Your task to perform on an android device: Open calendar and show me the first week of next month Image 0: 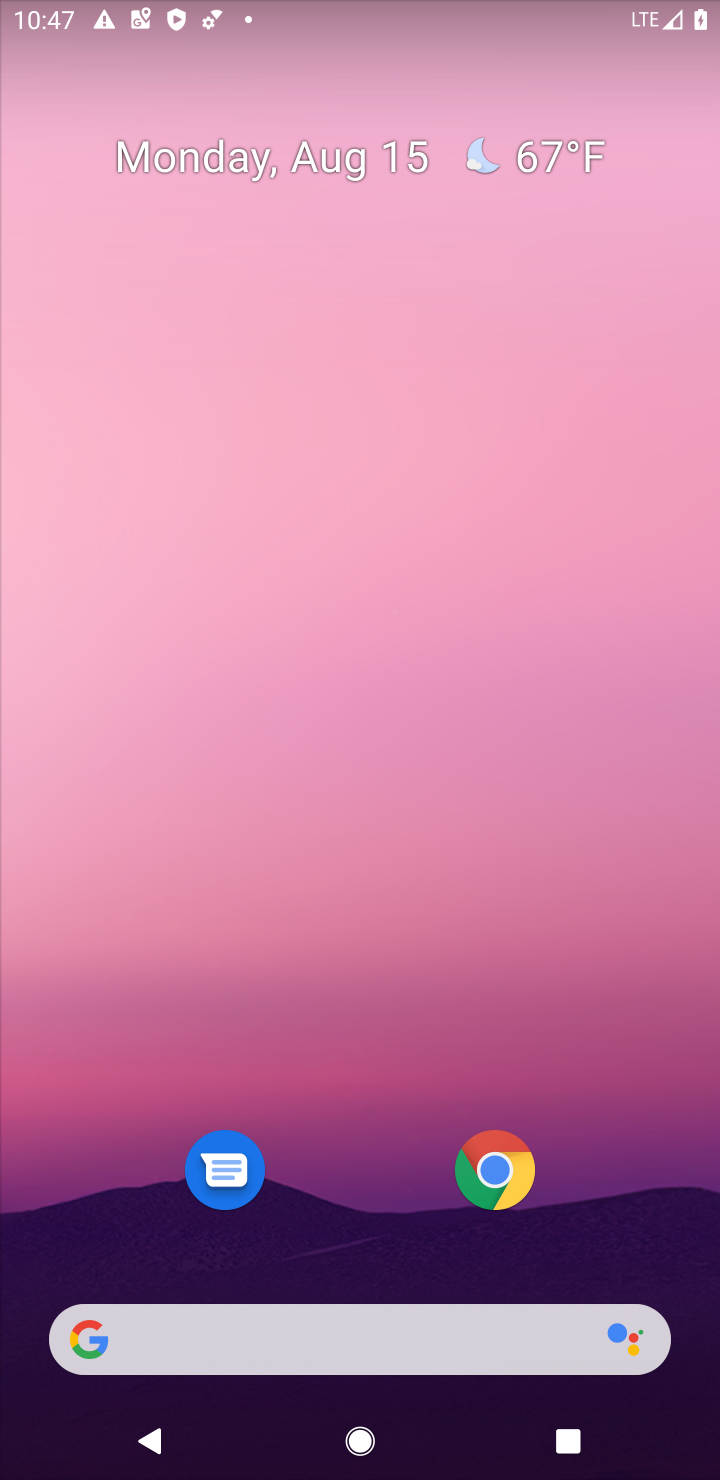
Step 0: drag from (365, 1252) to (310, 1)
Your task to perform on an android device: Open calendar and show me the first week of next month Image 1: 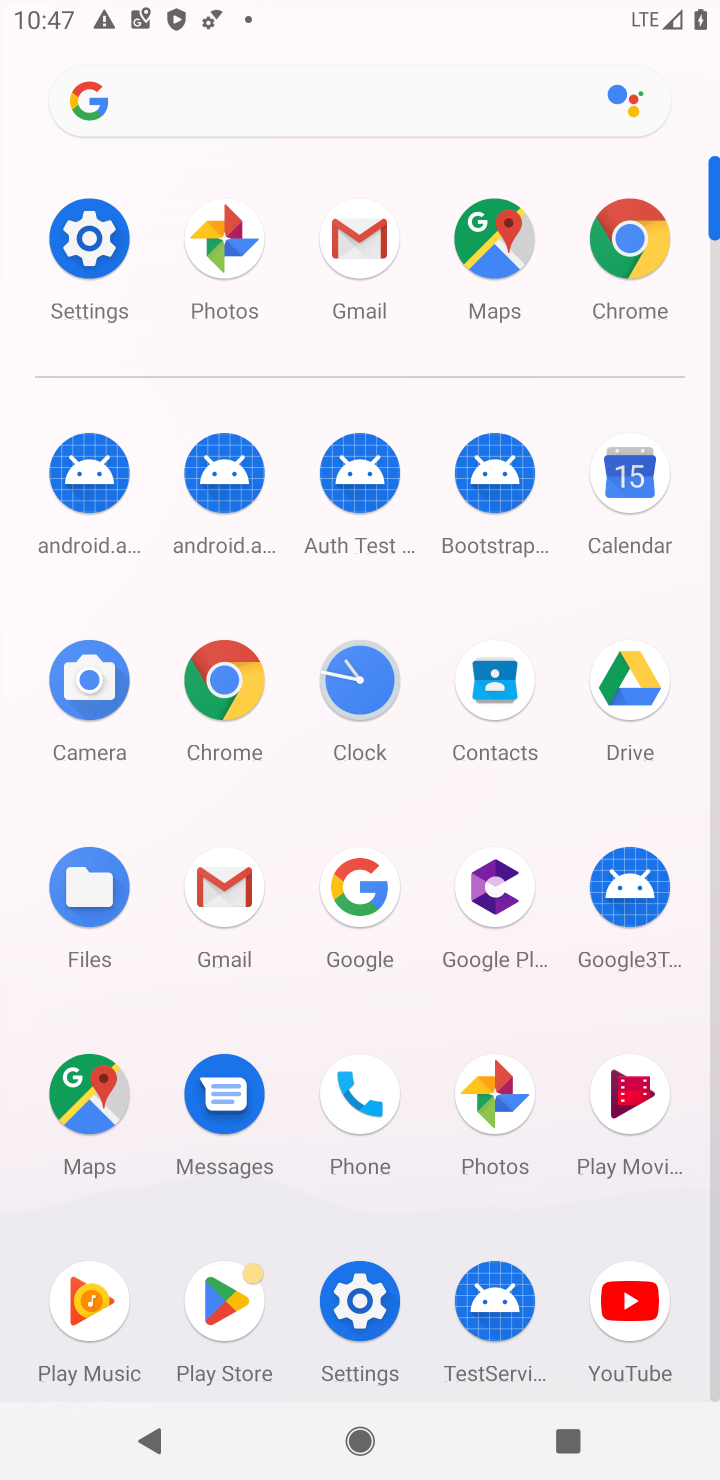
Step 1: click (629, 467)
Your task to perform on an android device: Open calendar and show me the first week of next month Image 2: 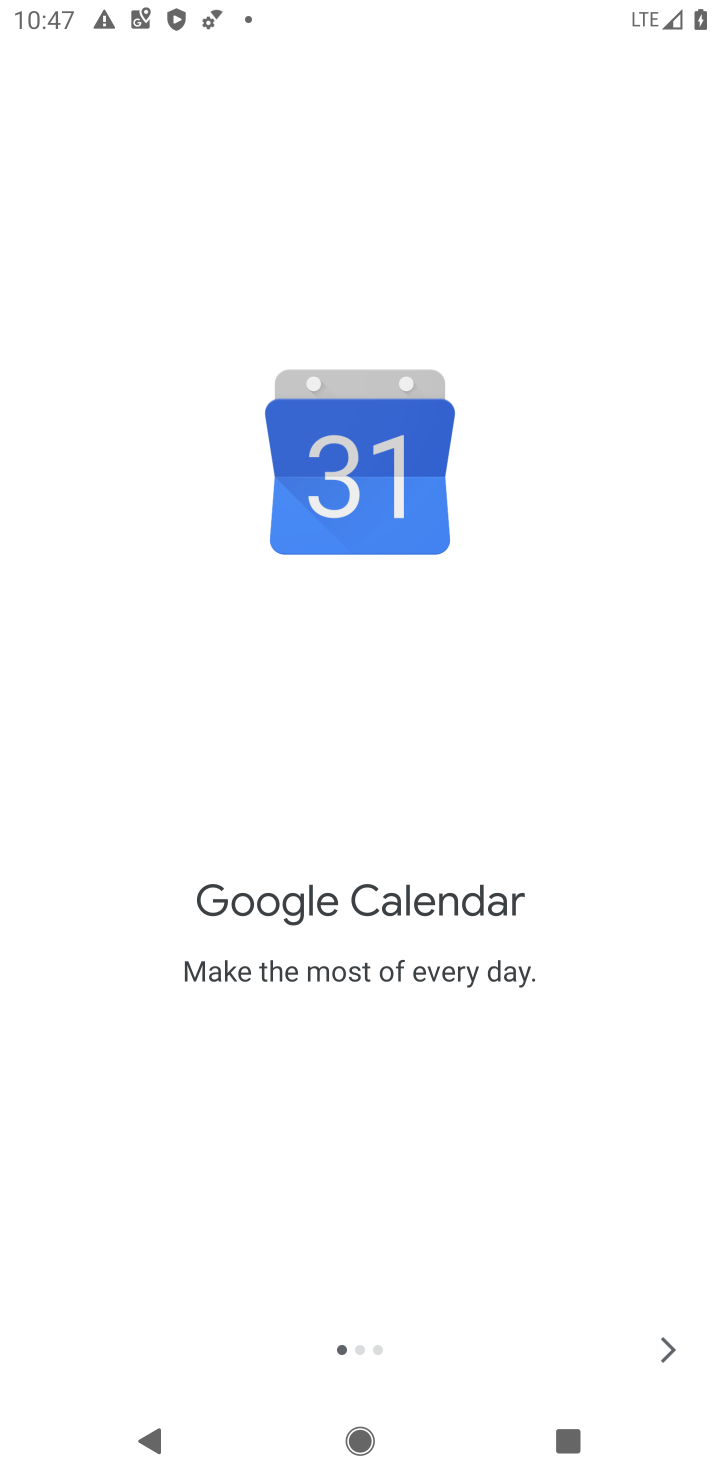
Step 2: click (655, 1348)
Your task to perform on an android device: Open calendar and show me the first week of next month Image 3: 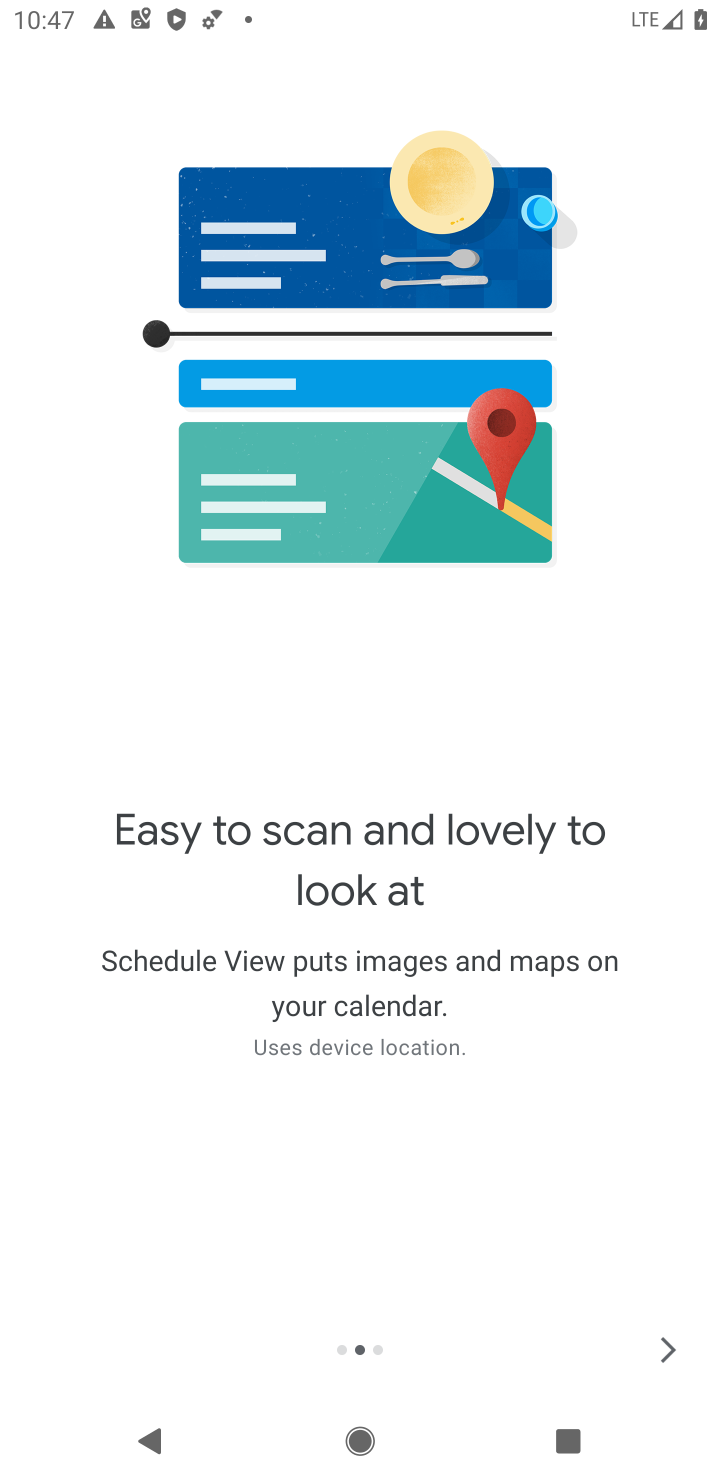
Step 3: click (655, 1348)
Your task to perform on an android device: Open calendar and show me the first week of next month Image 4: 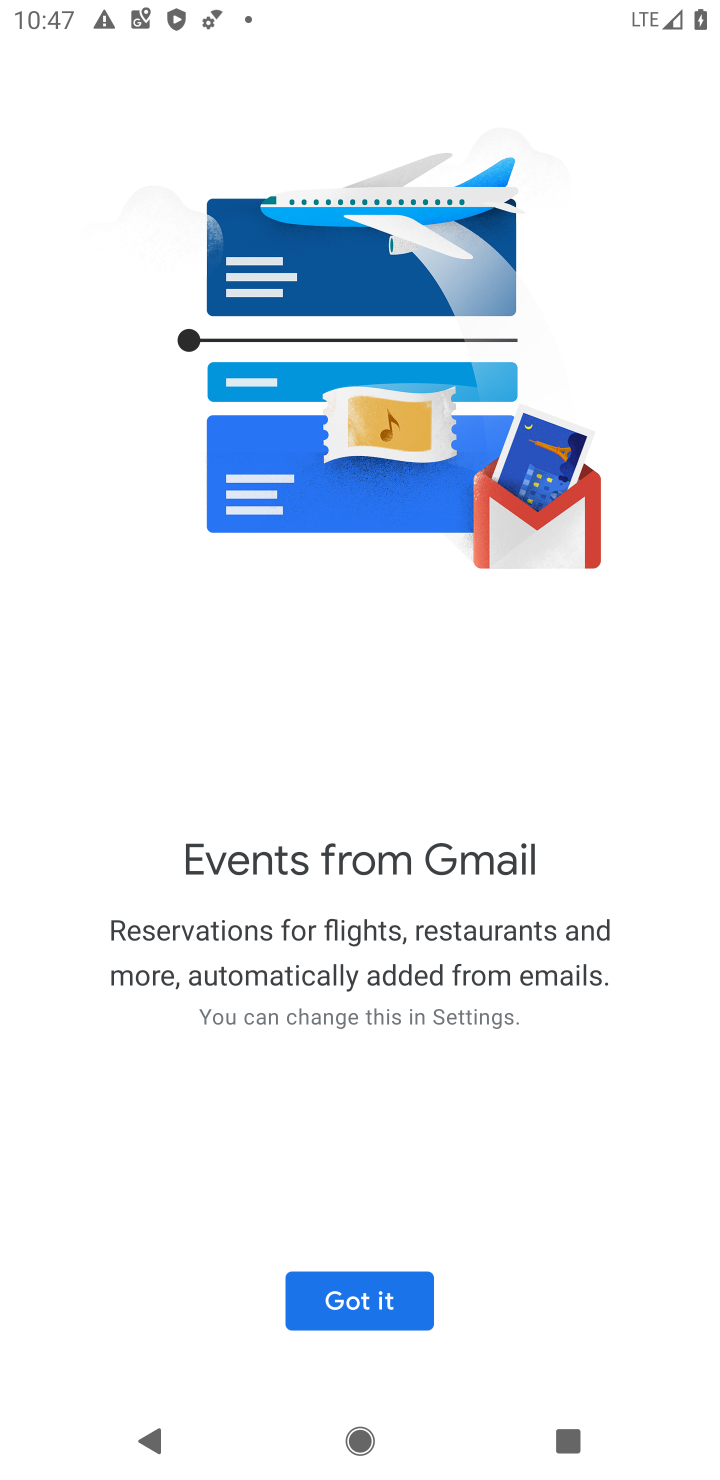
Step 4: click (360, 1292)
Your task to perform on an android device: Open calendar and show me the first week of next month Image 5: 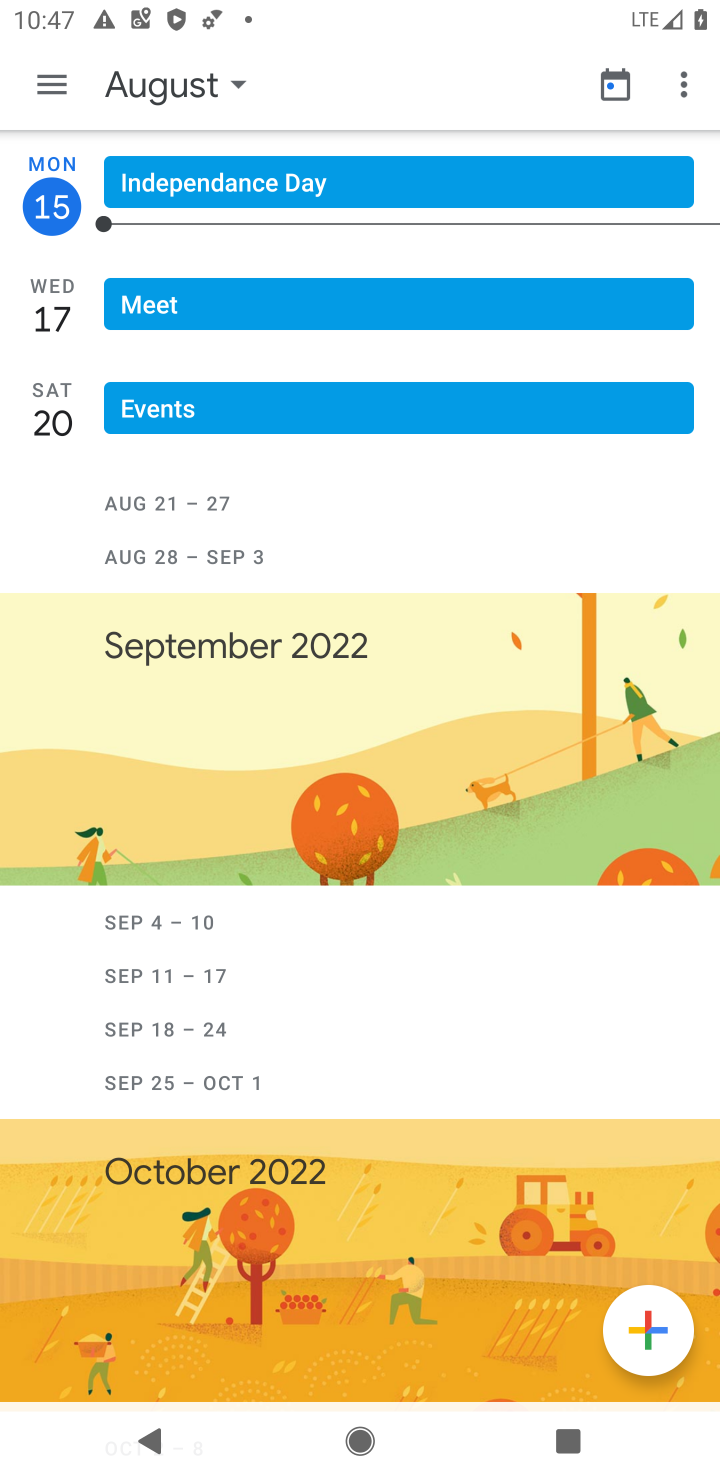
Step 5: click (49, 77)
Your task to perform on an android device: Open calendar and show me the first week of next month Image 6: 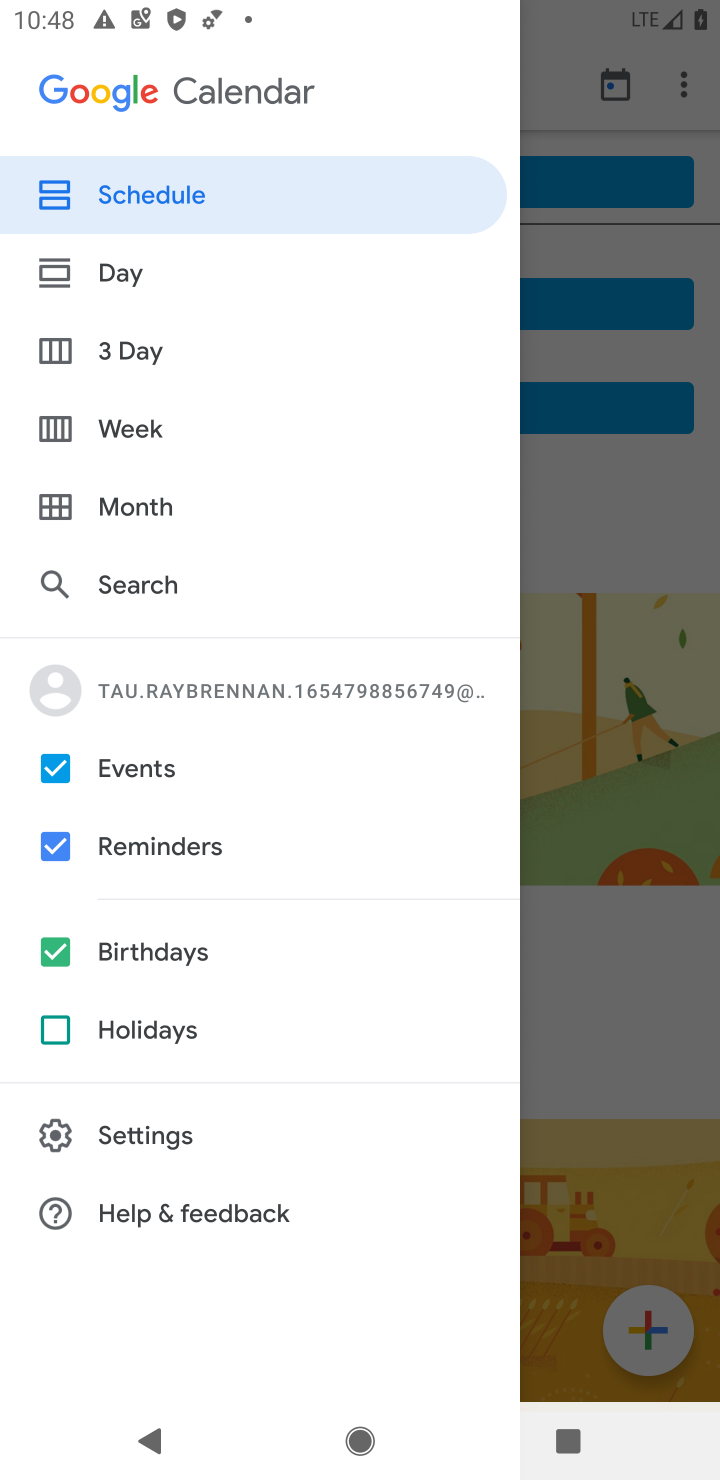
Step 6: click (85, 410)
Your task to perform on an android device: Open calendar and show me the first week of next month Image 7: 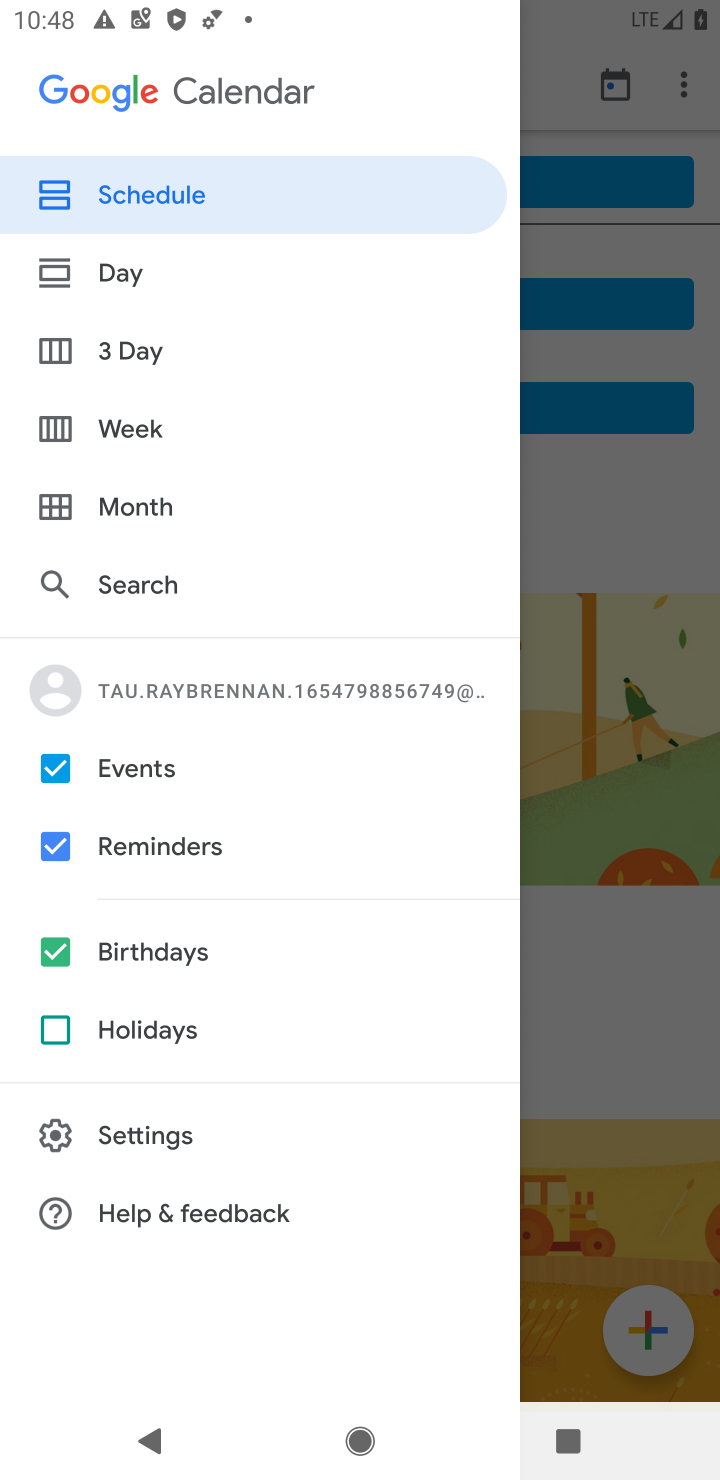
Step 7: click (87, 423)
Your task to perform on an android device: Open calendar and show me the first week of next month Image 8: 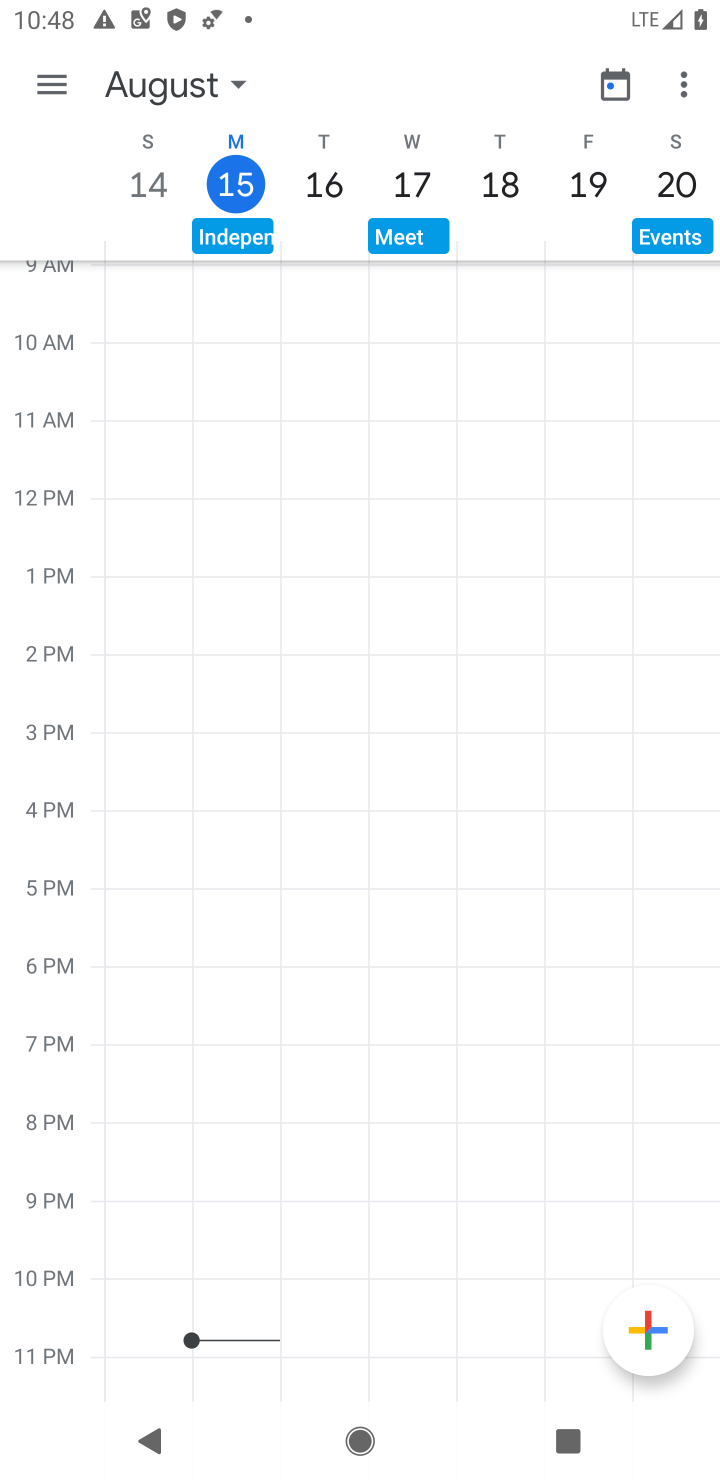
Step 8: click (243, 78)
Your task to perform on an android device: Open calendar and show me the first week of next month Image 9: 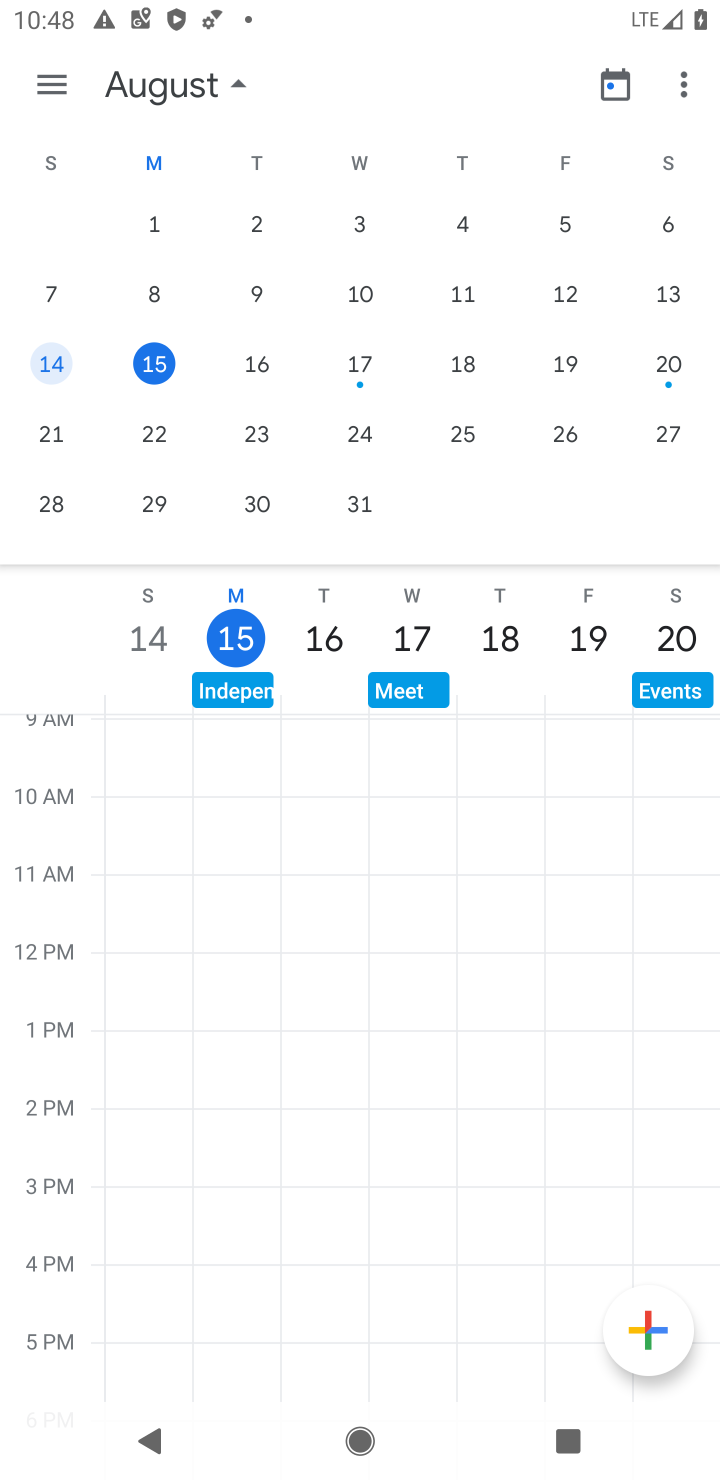
Step 9: drag from (647, 317) to (9, 397)
Your task to perform on an android device: Open calendar and show me the first week of next month Image 10: 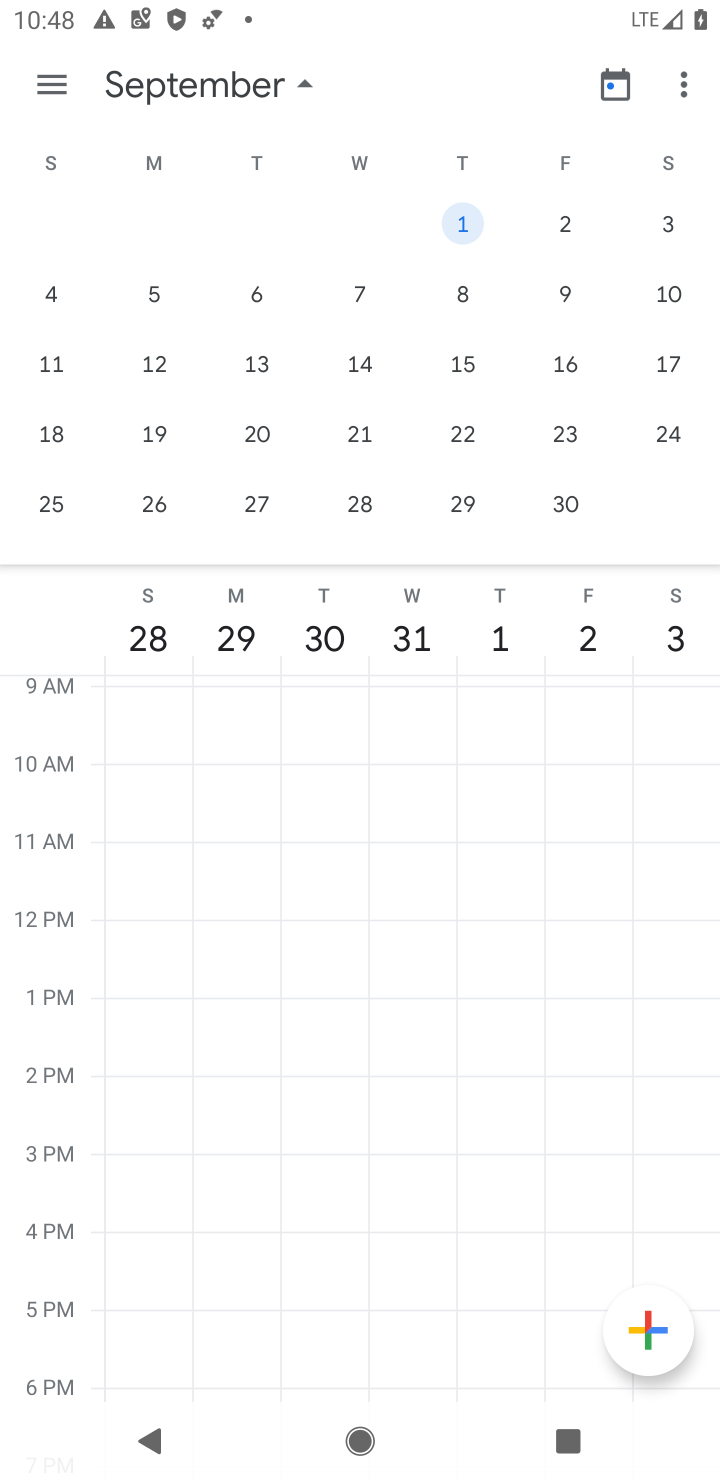
Step 10: click (49, 302)
Your task to perform on an android device: Open calendar and show me the first week of next month Image 11: 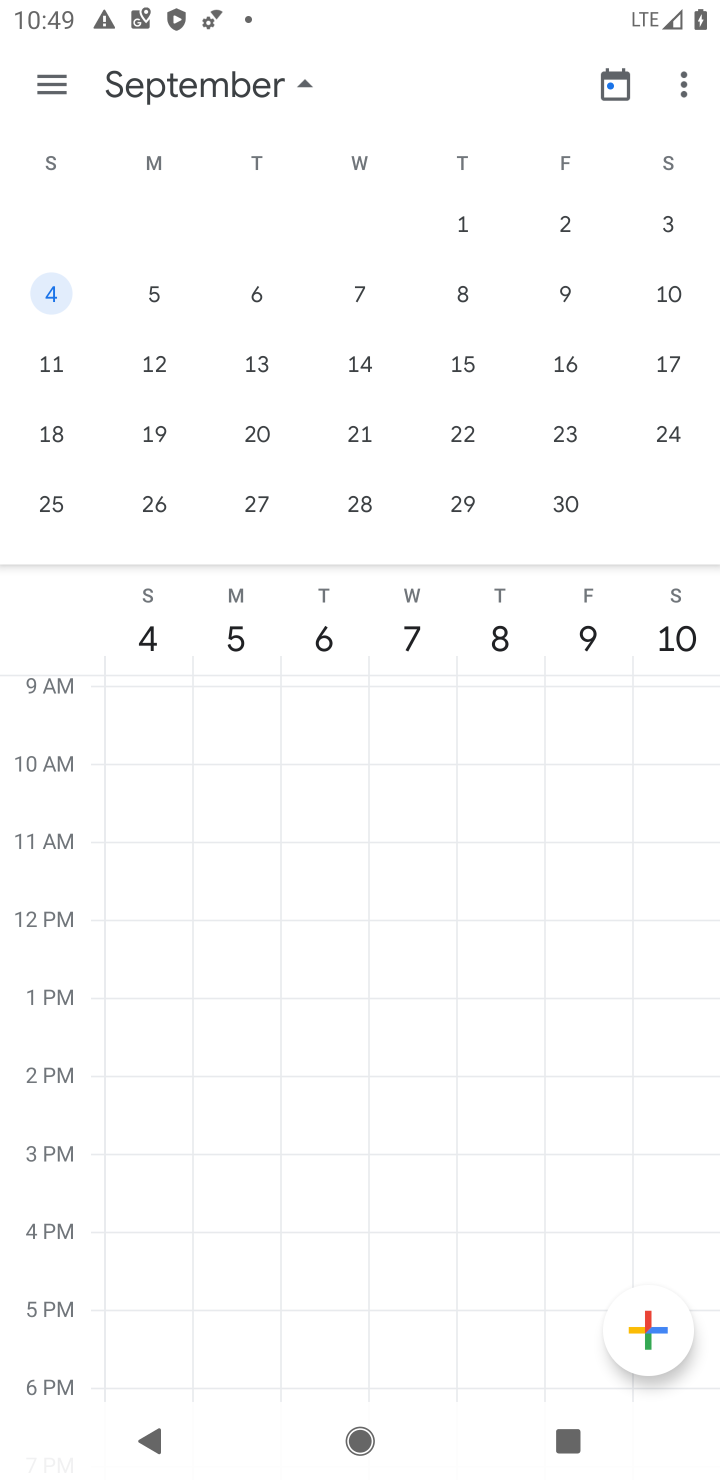
Step 11: click (150, 626)
Your task to perform on an android device: Open calendar and show me the first week of next month Image 12: 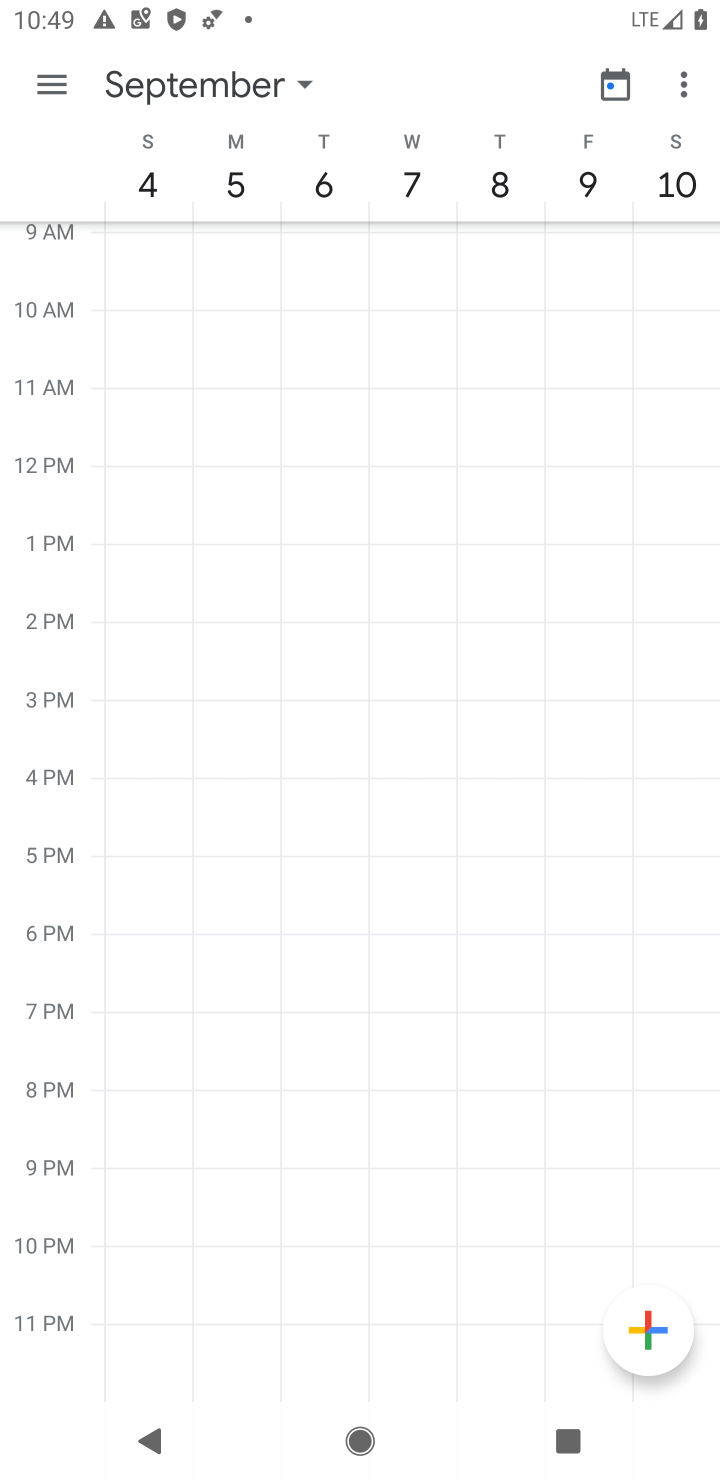
Step 12: click (145, 197)
Your task to perform on an android device: Open calendar and show me the first week of next month Image 13: 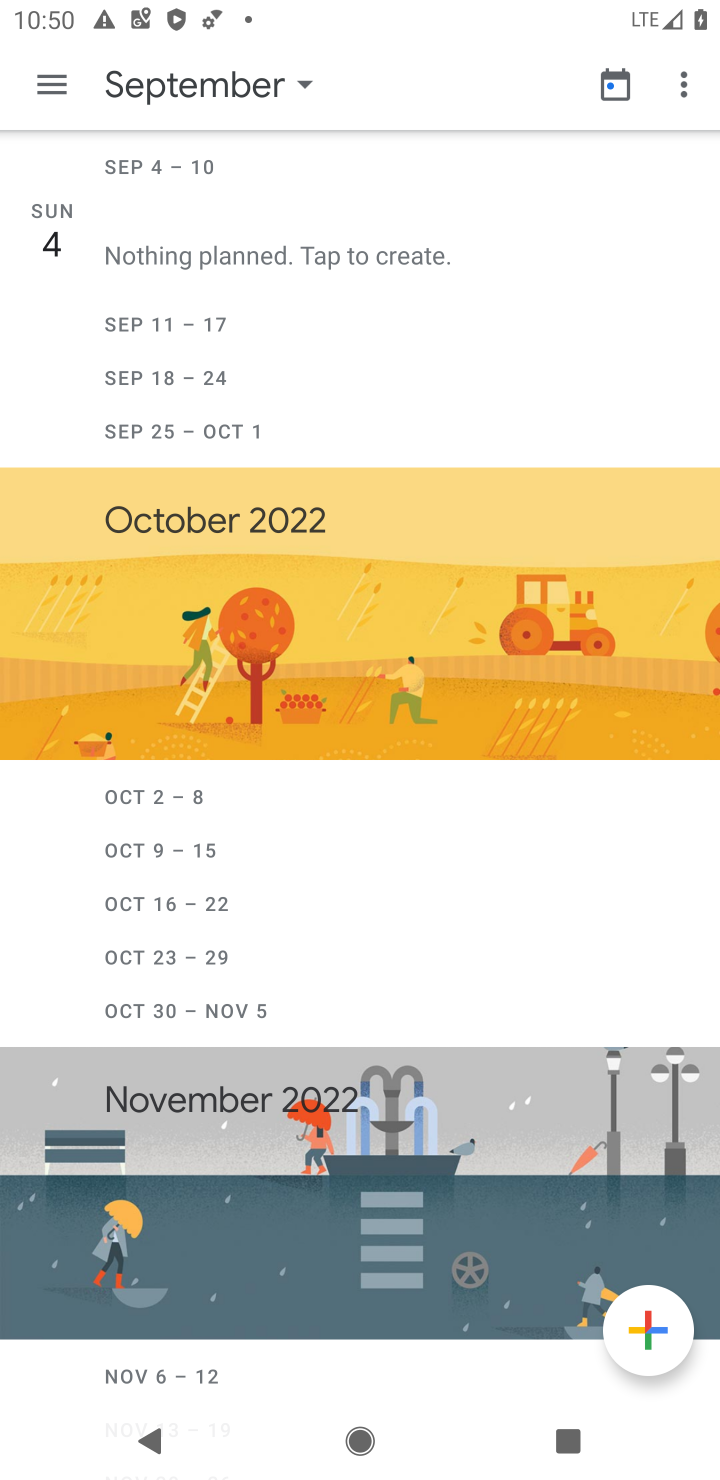
Step 13: task complete